Your task to perform on an android device: find which apps use the phone's location Image 0: 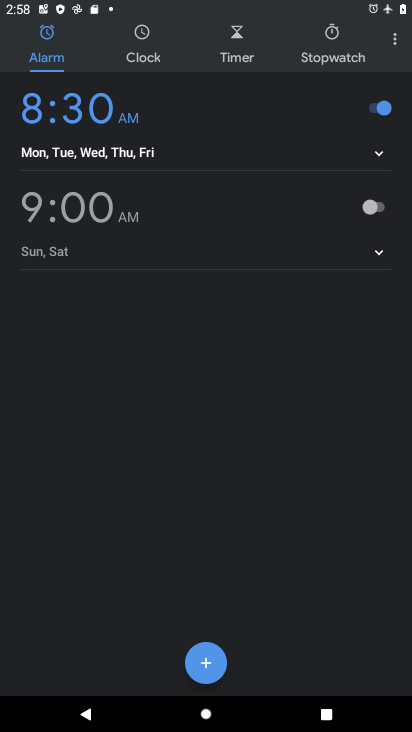
Step 0: press home button
Your task to perform on an android device: find which apps use the phone's location Image 1: 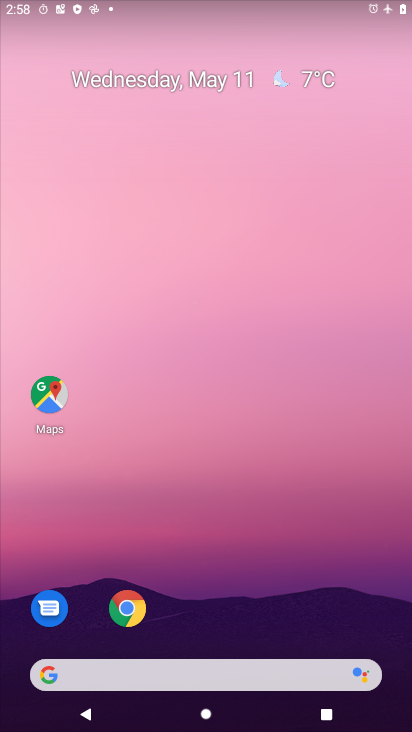
Step 1: drag from (232, 600) to (269, 84)
Your task to perform on an android device: find which apps use the phone's location Image 2: 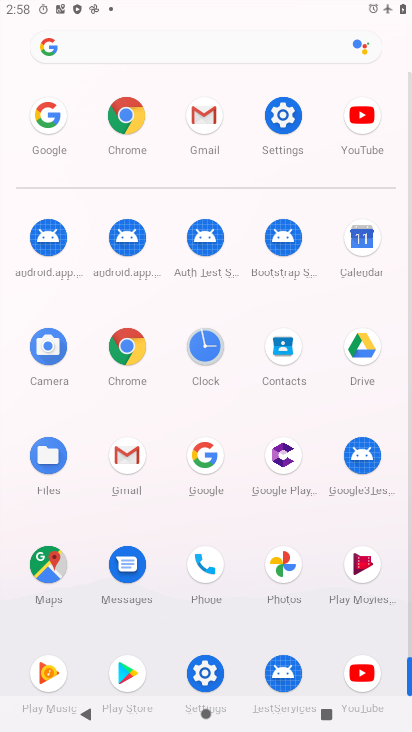
Step 2: click (284, 104)
Your task to perform on an android device: find which apps use the phone's location Image 3: 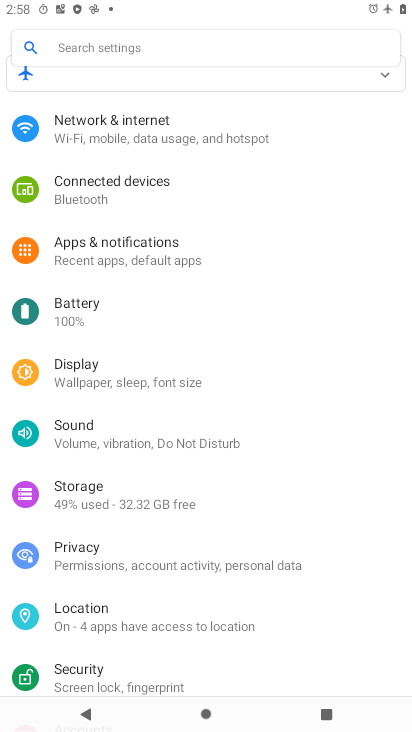
Step 3: click (101, 622)
Your task to perform on an android device: find which apps use the phone's location Image 4: 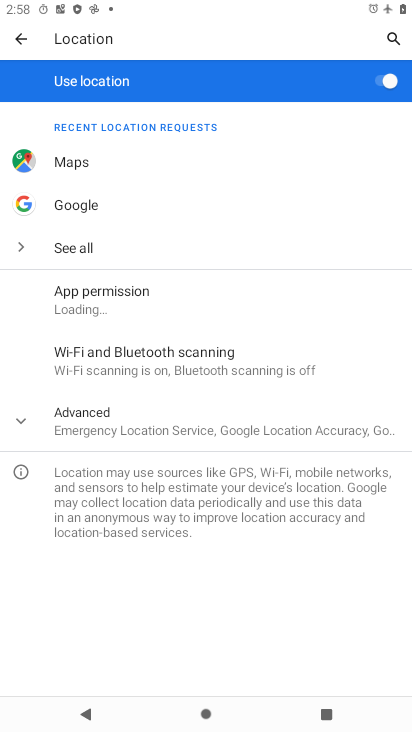
Step 4: click (109, 296)
Your task to perform on an android device: find which apps use the phone's location Image 5: 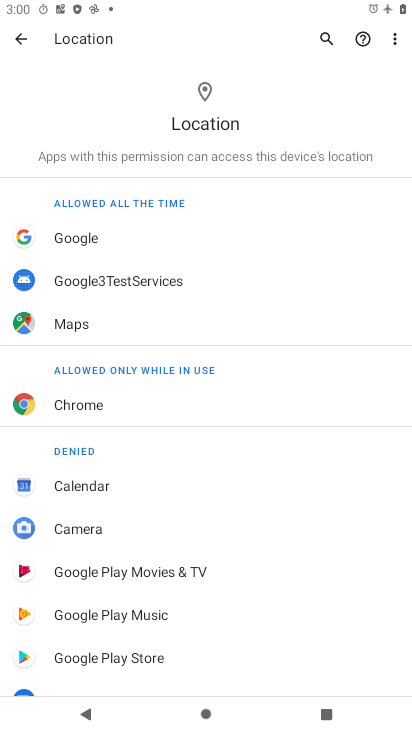
Step 5: task complete